Your task to perform on an android device: Is it going to rain this weekend? Image 0: 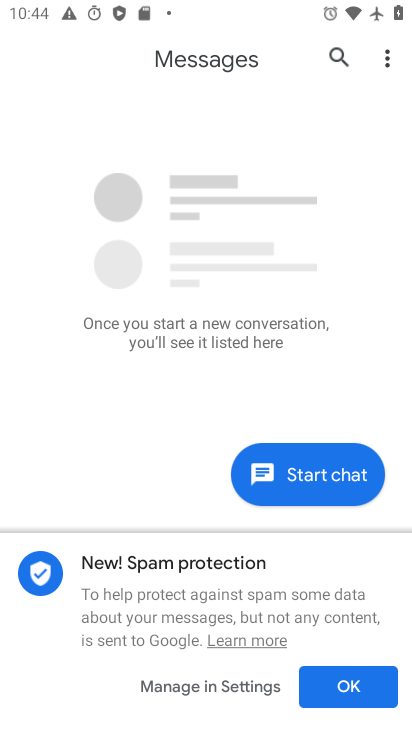
Step 0: press home button
Your task to perform on an android device: Is it going to rain this weekend? Image 1: 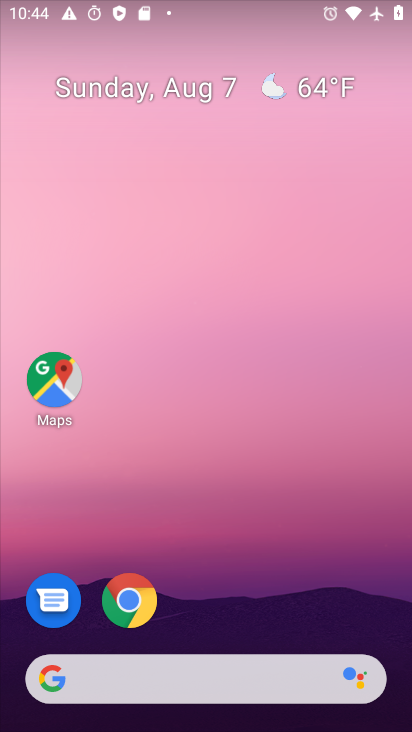
Step 1: drag from (265, 610) to (305, 186)
Your task to perform on an android device: Is it going to rain this weekend? Image 2: 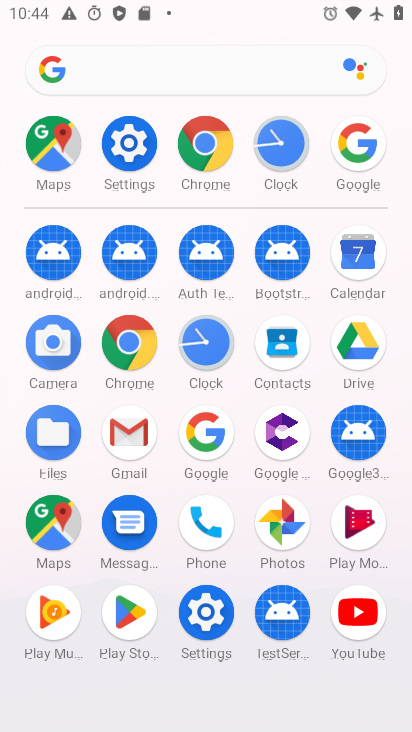
Step 2: click (201, 456)
Your task to perform on an android device: Is it going to rain this weekend? Image 3: 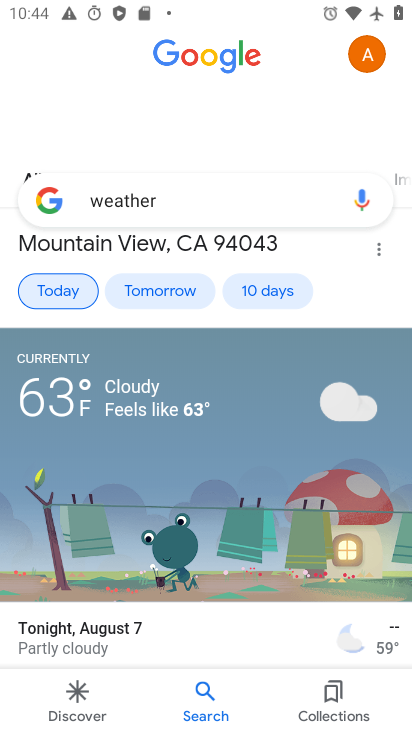
Step 3: click (261, 213)
Your task to perform on an android device: Is it going to rain this weekend? Image 4: 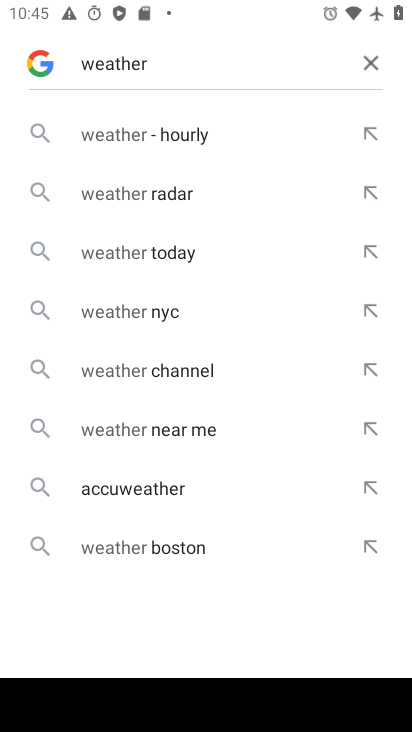
Step 4: click (158, 259)
Your task to perform on an android device: Is it going to rain this weekend? Image 5: 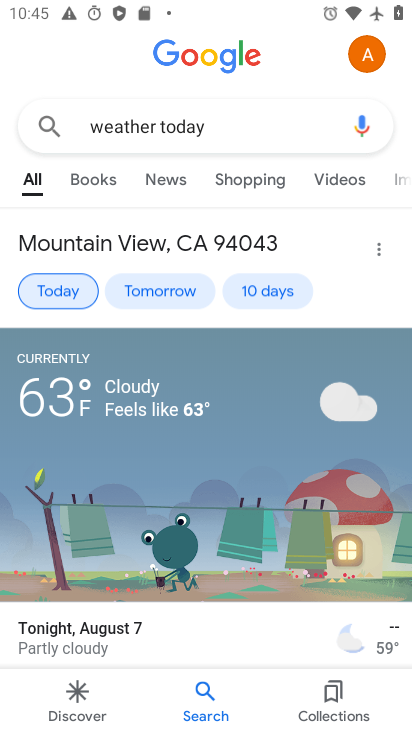
Step 5: click (261, 297)
Your task to perform on an android device: Is it going to rain this weekend? Image 6: 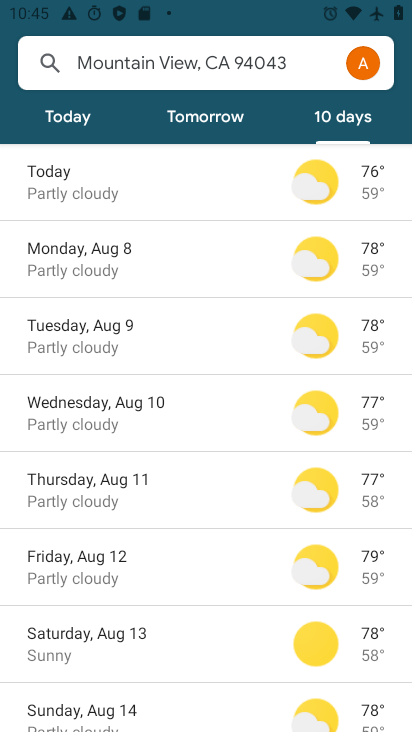
Step 6: task complete